Your task to perform on an android device: turn on sleep mode Image 0: 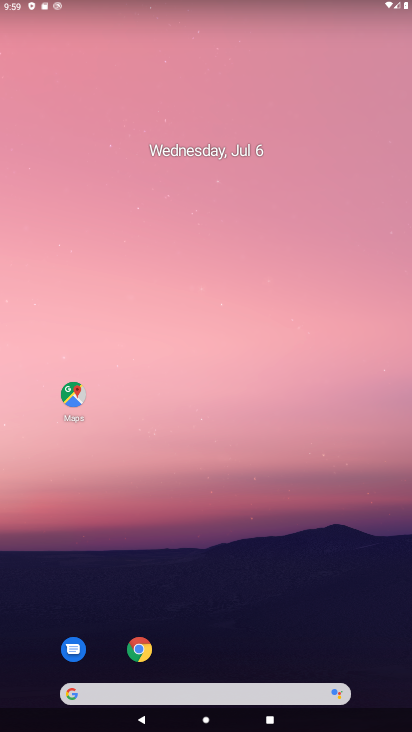
Step 0: click (250, 130)
Your task to perform on an android device: turn on sleep mode Image 1: 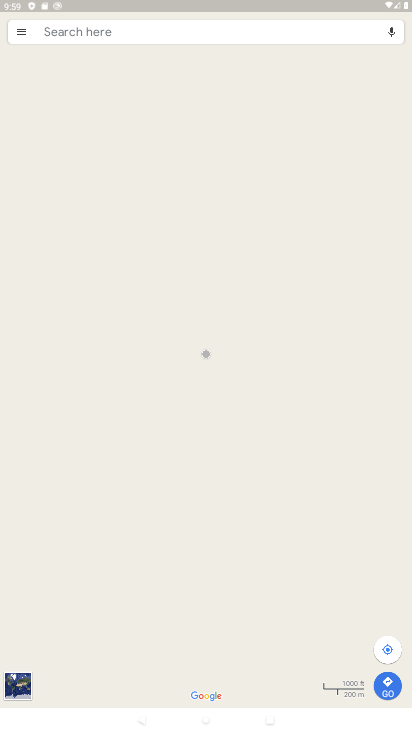
Step 1: press home button
Your task to perform on an android device: turn on sleep mode Image 2: 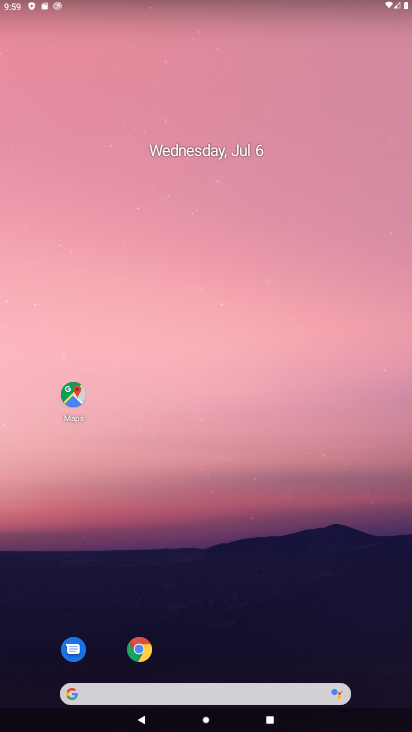
Step 2: drag from (249, 559) to (207, 69)
Your task to perform on an android device: turn on sleep mode Image 3: 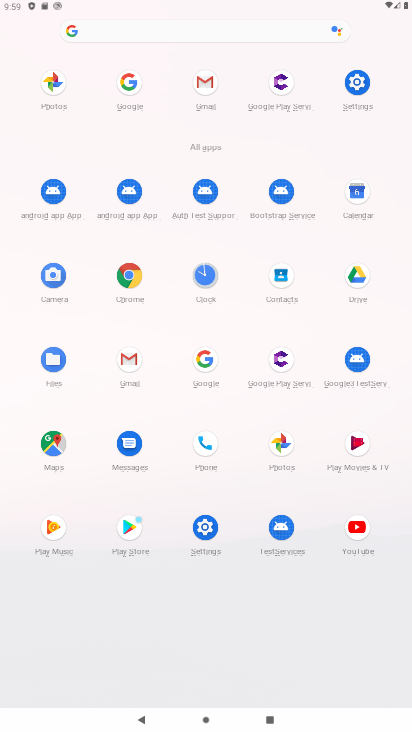
Step 3: click (355, 92)
Your task to perform on an android device: turn on sleep mode Image 4: 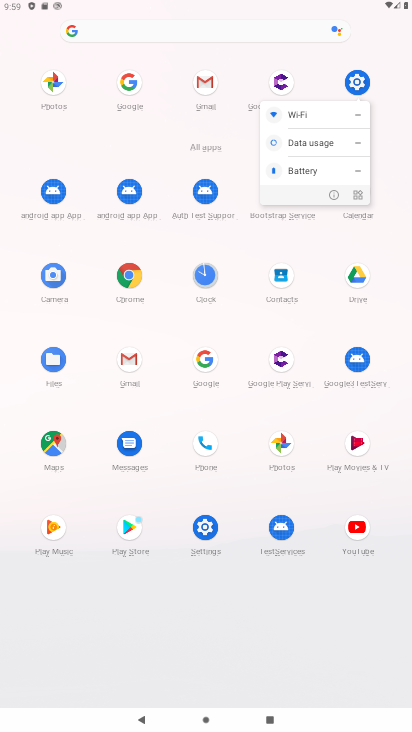
Step 4: click (399, 119)
Your task to perform on an android device: turn on sleep mode Image 5: 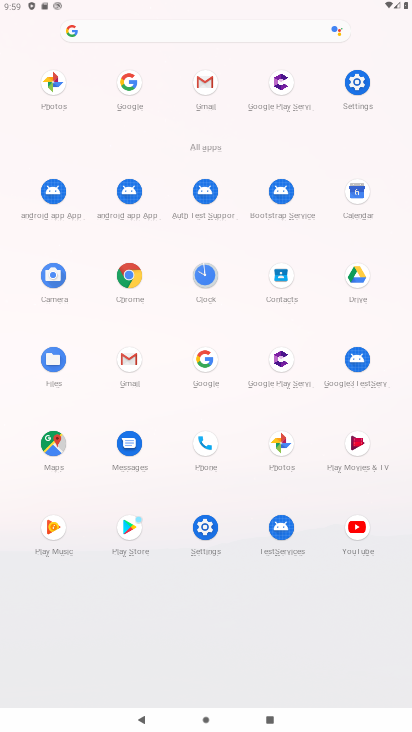
Step 5: click (391, 87)
Your task to perform on an android device: turn on sleep mode Image 6: 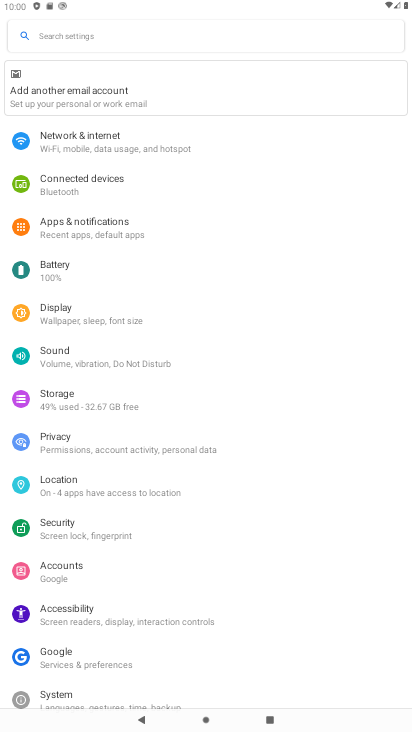
Step 6: drag from (83, 420) to (83, 348)
Your task to perform on an android device: turn on sleep mode Image 7: 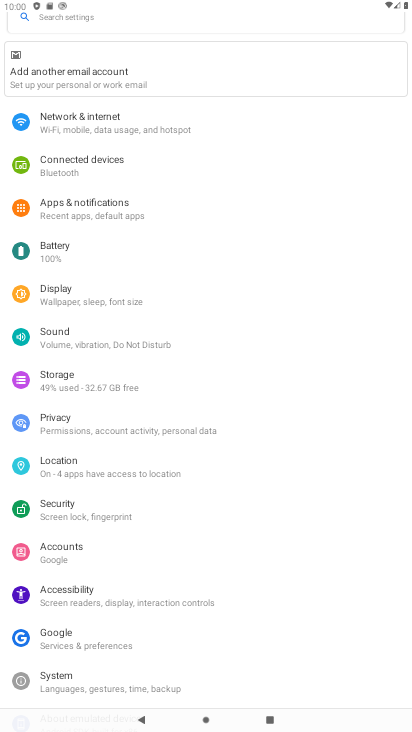
Step 7: click (76, 302)
Your task to perform on an android device: turn on sleep mode Image 8: 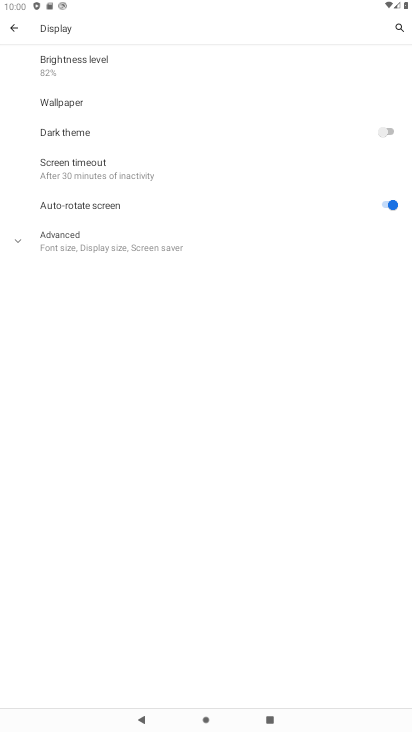
Step 8: click (101, 249)
Your task to perform on an android device: turn on sleep mode Image 9: 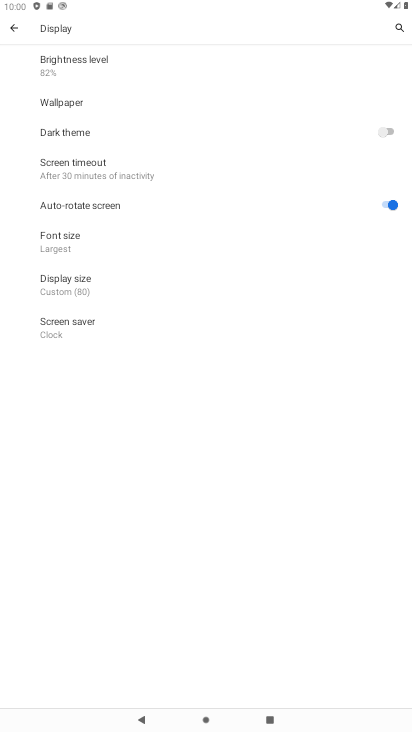
Step 9: task complete